Your task to perform on an android device: What is the news today? Image 0: 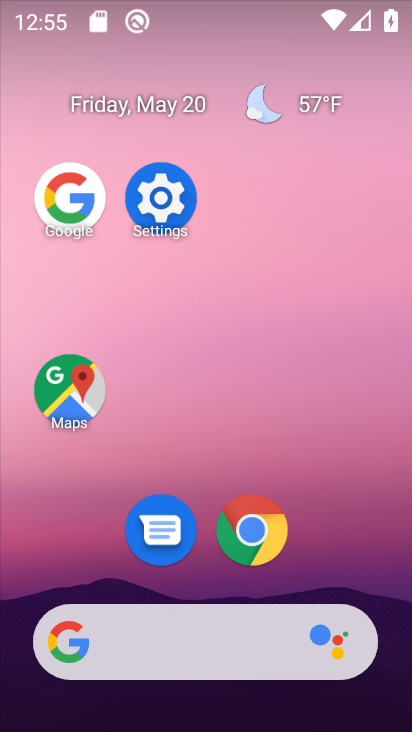
Step 0: click (74, 221)
Your task to perform on an android device: What is the news today? Image 1: 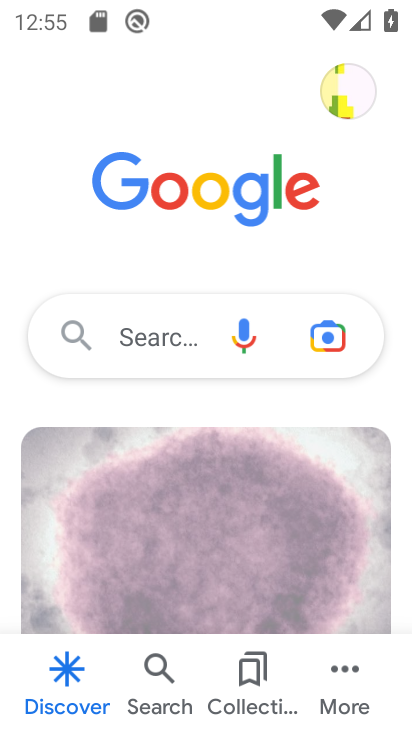
Step 1: click (179, 338)
Your task to perform on an android device: What is the news today? Image 2: 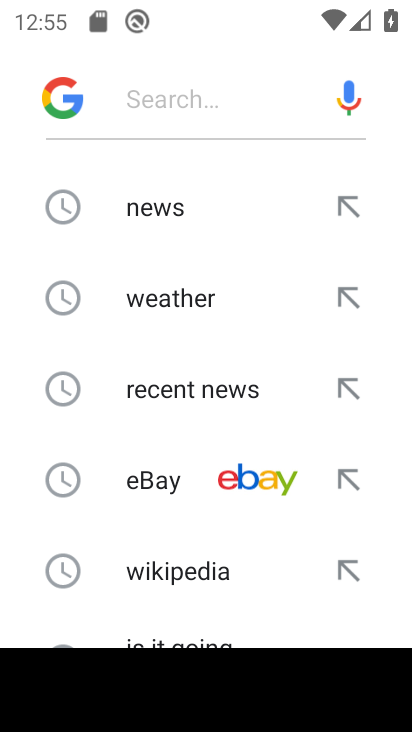
Step 2: click (174, 225)
Your task to perform on an android device: What is the news today? Image 3: 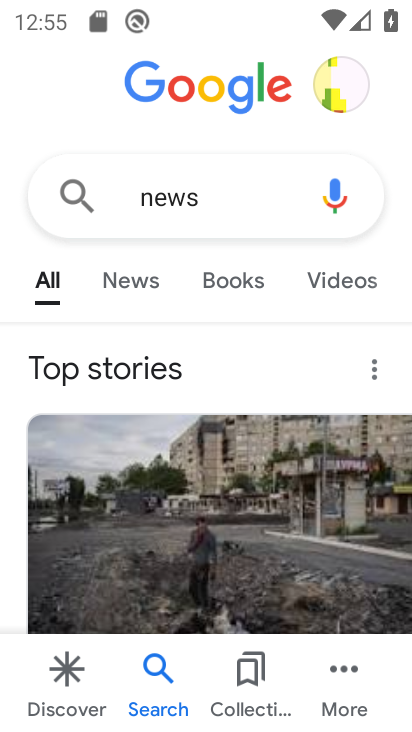
Step 3: task complete